Your task to perform on an android device: visit the assistant section in the google photos Image 0: 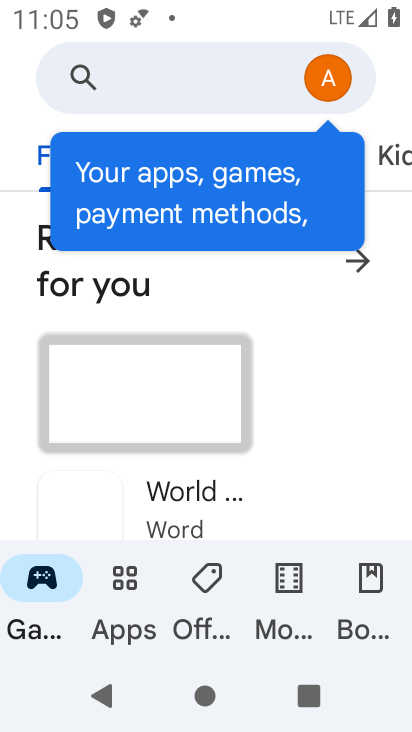
Step 0: press home button
Your task to perform on an android device: visit the assistant section in the google photos Image 1: 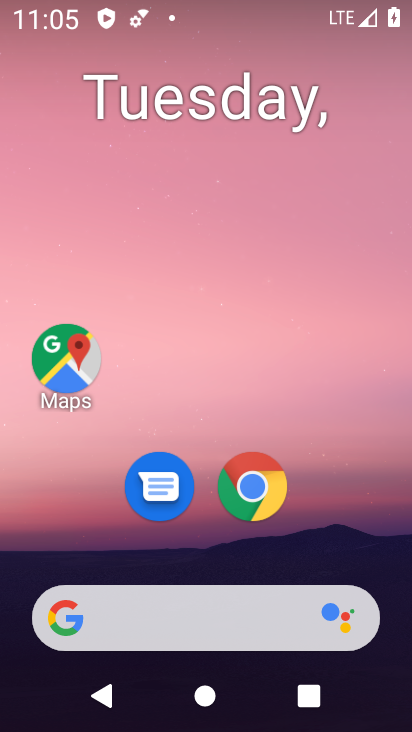
Step 1: drag from (383, 551) to (344, 60)
Your task to perform on an android device: visit the assistant section in the google photos Image 2: 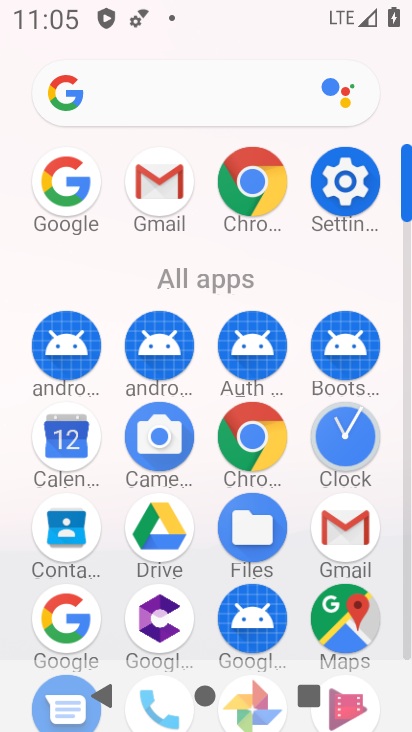
Step 2: drag from (382, 402) to (392, 123)
Your task to perform on an android device: visit the assistant section in the google photos Image 3: 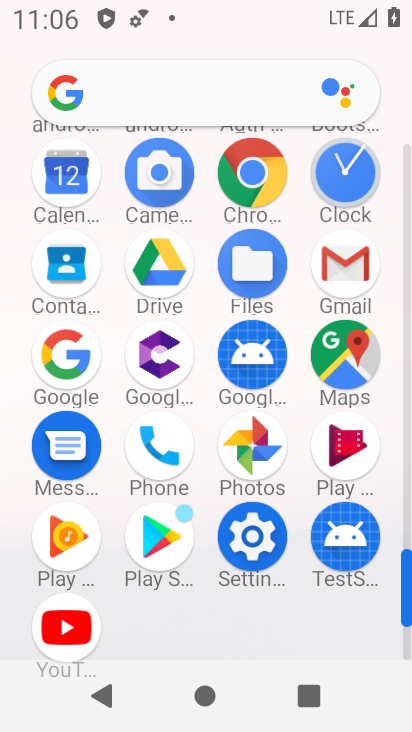
Step 3: click (258, 447)
Your task to perform on an android device: visit the assistant section in the google photos Image 4: 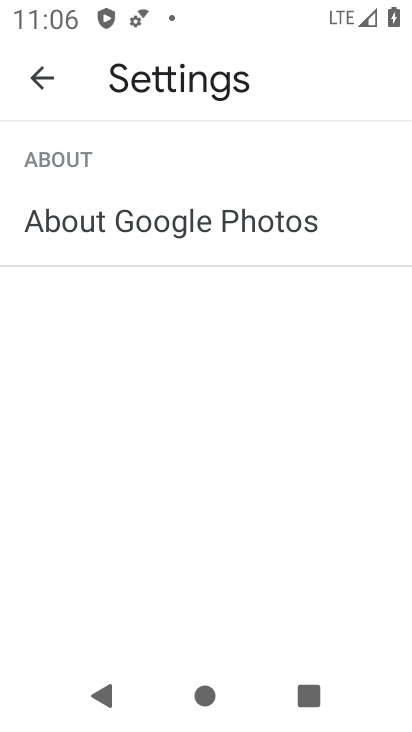
Step 4: press back button
Your task to perform on an android device: visit the assistant section in the google photos Image 5: 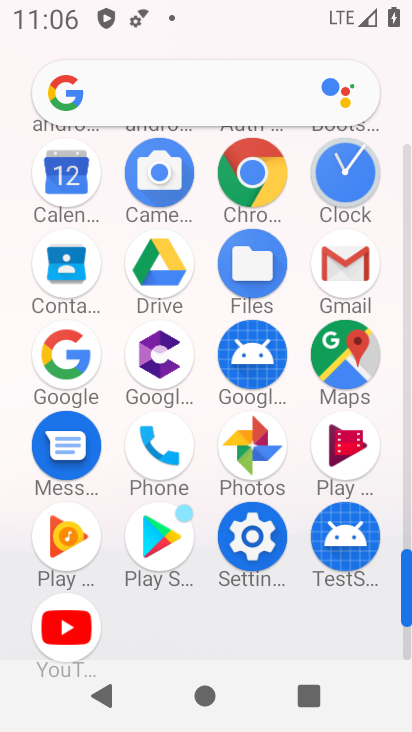
Step 5: click (254, 460)
Your task to perform on an android device: visit the assistant section in the google photos Image 6: 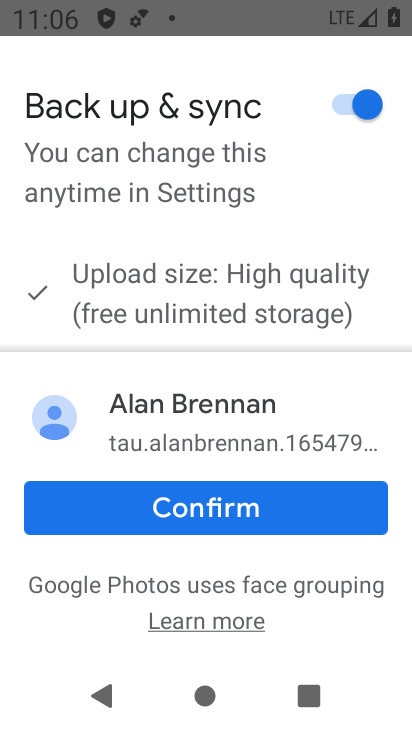
Step 6: click (315, 512)
Your task to perform on an android device: visit the assistant section in the google photos Image 7: 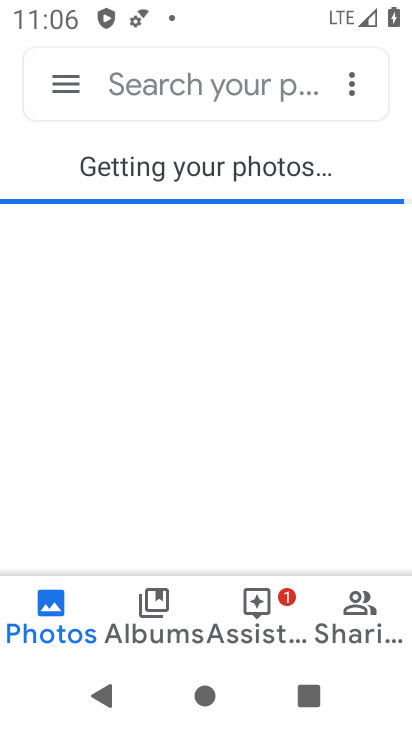
Step 7: click (258, 611)
Your task to perform on an android device: visit the assistant section in the google photos Image 8: 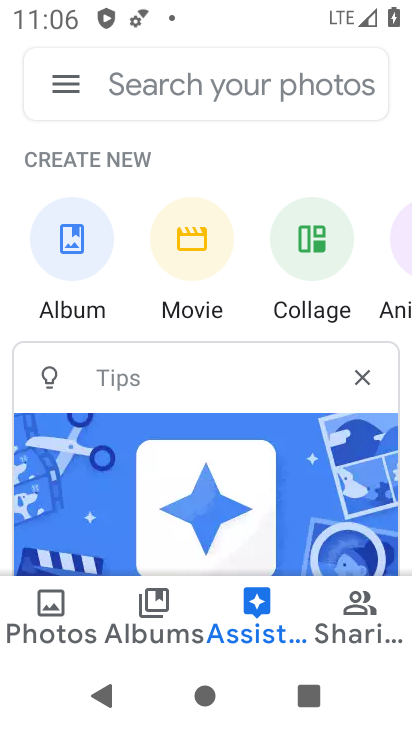
Step 8: task complete